Your task to perform on an android device: Open battery settings Image 0: 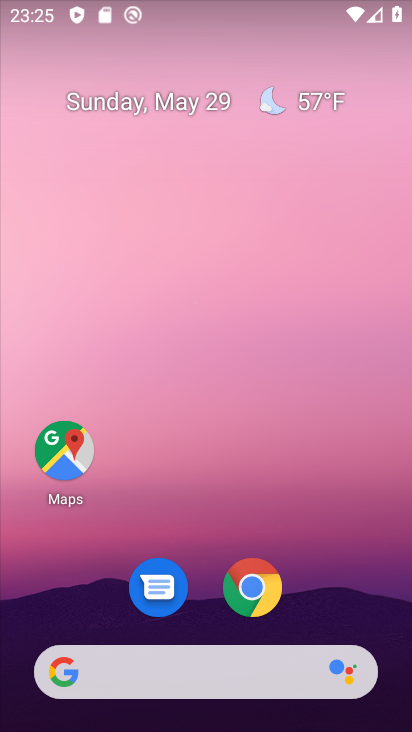
Step 0: drag from (356, 623) to (276, 192)
Your task to perform on an android device: Open battery settings Image 1: 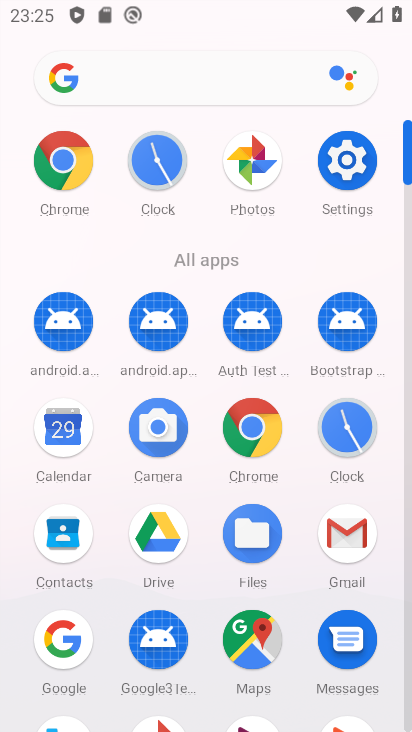
Step 1: click (356, 175)
Your task to perform on an android device: Open battery settings Image 2: 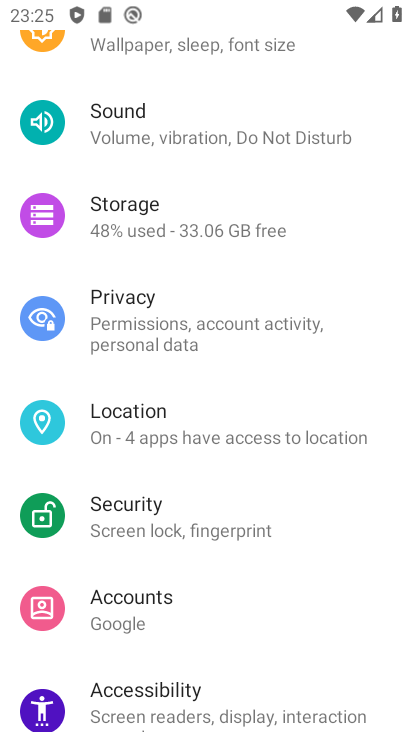
Step 2: drag from (267, 168) to (277, 590)
Your task to perform on an android device: Open battery settings Image 3: 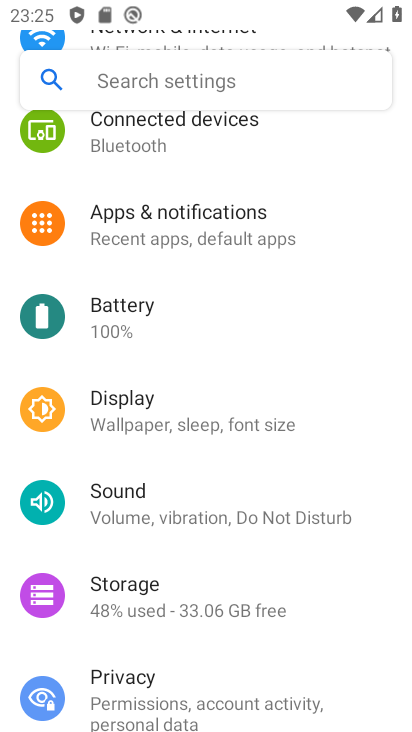
Step 3: click (213, 331)
Your task to perform on an android device: Open battery settings Image 4: 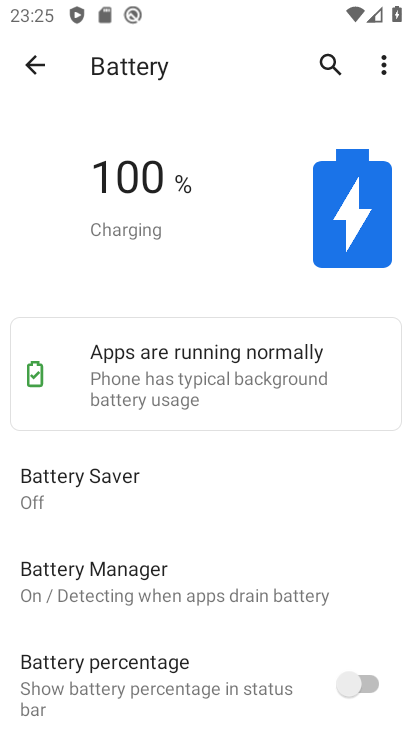
Step 4: task complete